Your task to perform on an android device: Open wifi settings Image 0: 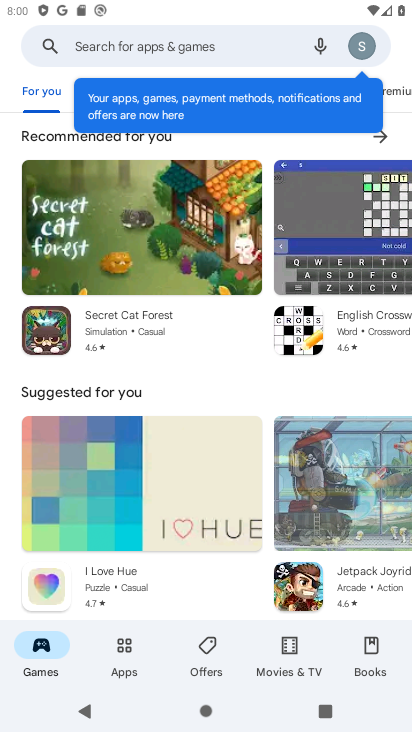
Step 0: press home button
Your task to perform on an android device: Open wifi settings Image 1: 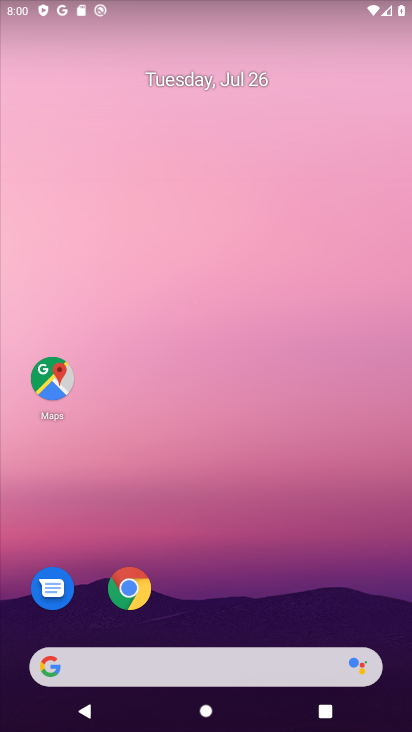
Step 1: drag from (237, 619) to (195, 92)
Your task to perform on an android device: Open wifi settings Image 2: 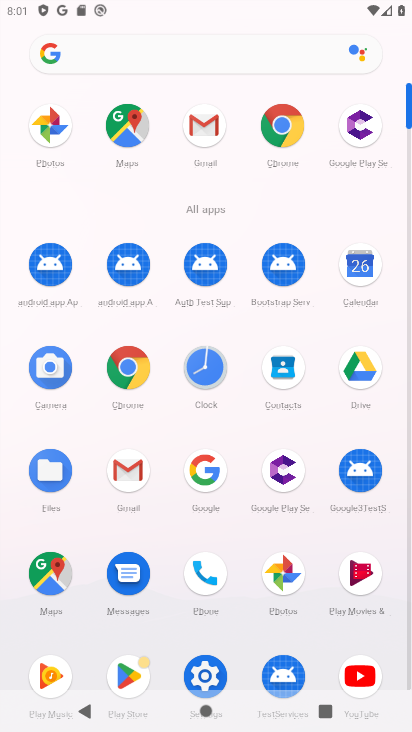
Step 2: click (208, 674)
Your task to perform on an android device: Open wifi settings Image 3: 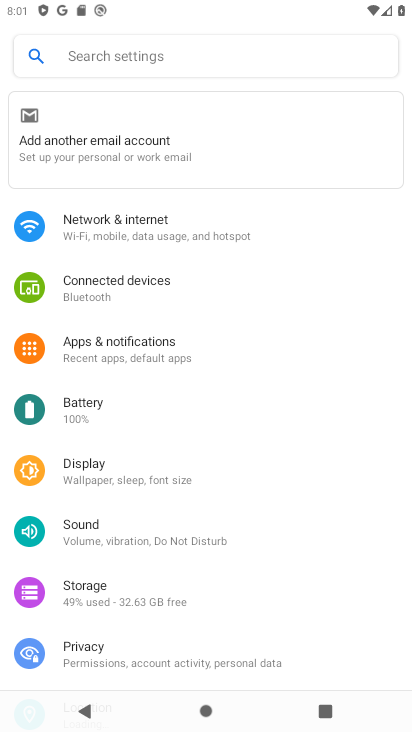
Step 3: click (129, 224)
Your task to perform on an android device: Open wifi settings Image 4: 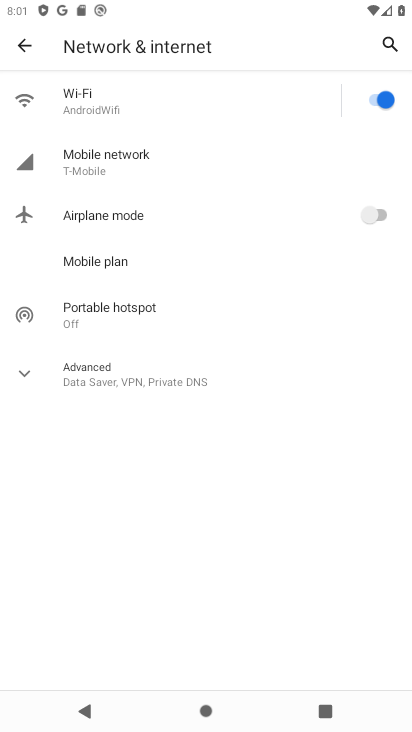
Step 4: click (107, 87)
Your task to perform on an android device: Open wifi settings Image 5: 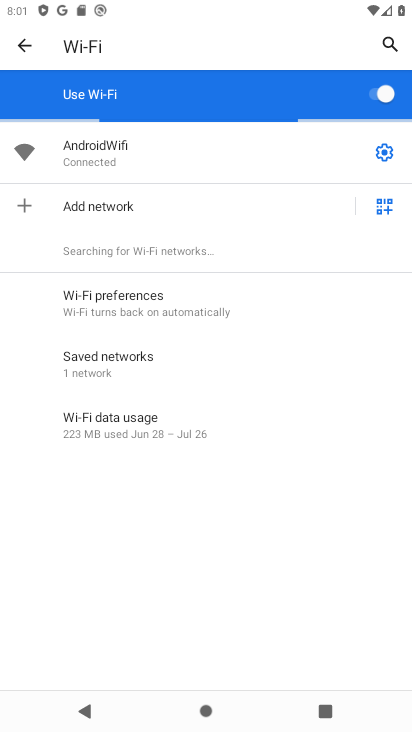
Step 5: task complete